Your task to perform on an android device: add a contact in the contacts app Image 0: 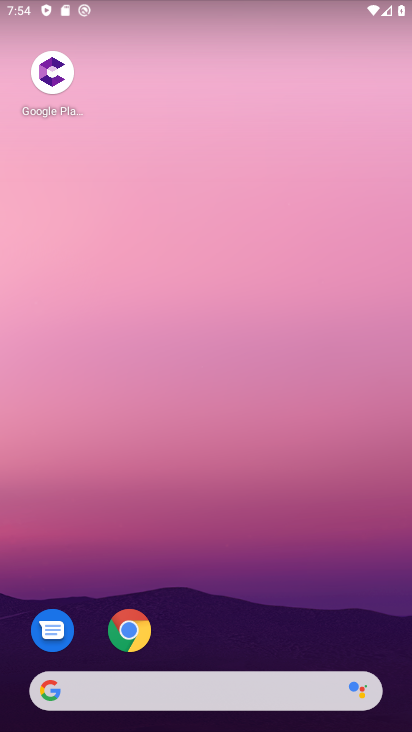
Step 0: drag from (254, 621) to (326, 184)
Your task to perform on an android device: add a contact in the contacts app Image 1: 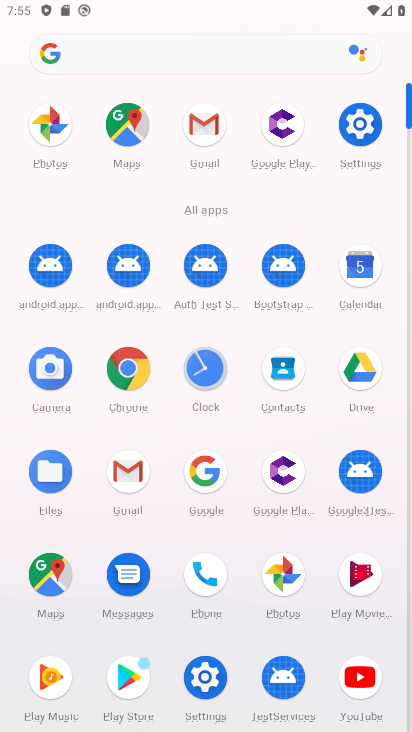
Step 1: click (277, 372)
Your task to perform on an android device: add a contact in the contacts app Image 2: 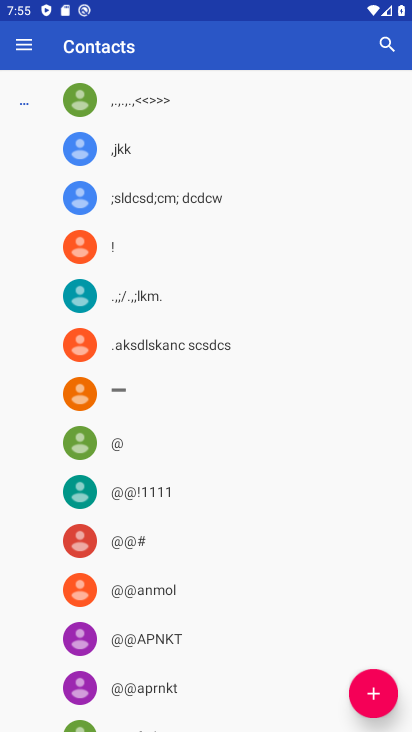
Step 2: click (374, 698)
Your task to perform on an android device: add a contact in the contacts app Image 3: 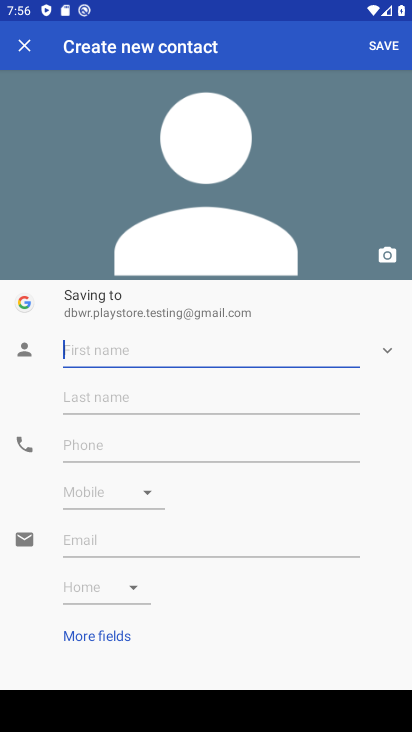
Step 3: click (111, 392)
Your task to perform on an android device: add a contact in the contacts app Image 4: 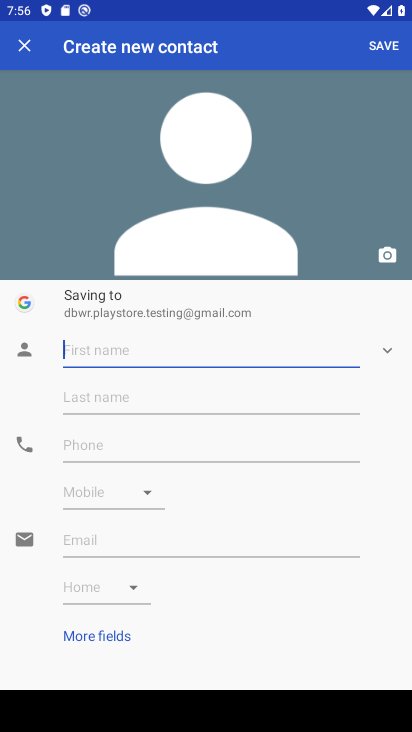
Step 4: type "jj"
Your task to perform on an android device: add a contact in the contacts app Image 5: 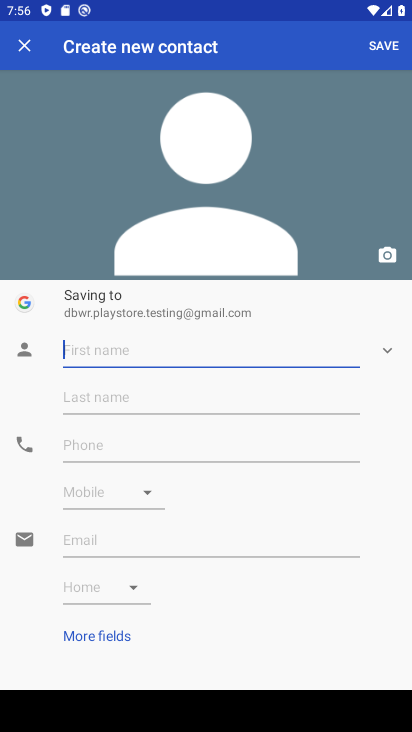
Step 5: click (111, 392)
Your task to perform on an android device: add a contact in the contacts app Image 6: 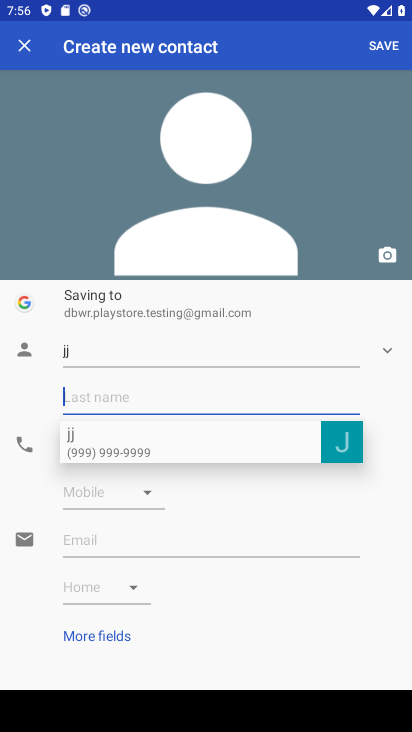
Step 6: type "hh"
Your task to perform on an android device: add a contact in the contacts app Image 7: 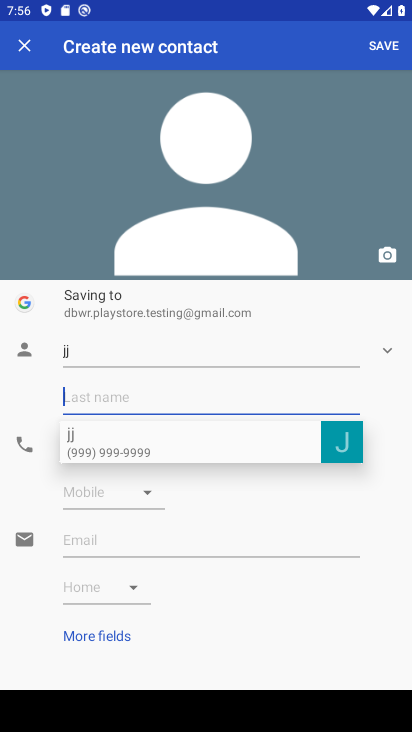
Step 7: click (122, 447)
Your task to perform on an android device: add a contact in the contacts app Image 8: 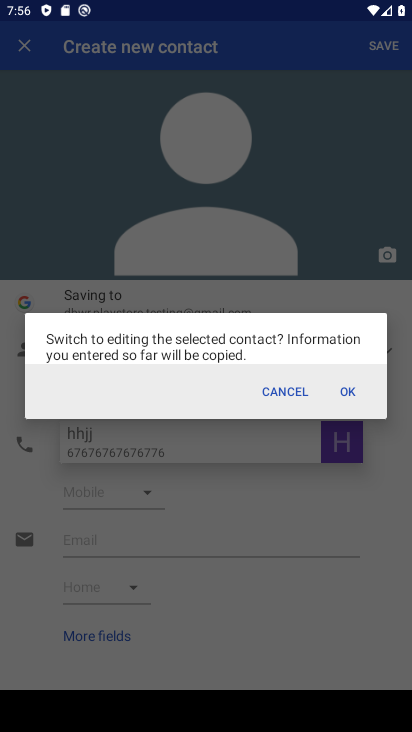
Step 8: click (340, 389)
Your task to perform on an android device: add a contact in the contacts app Image 9: 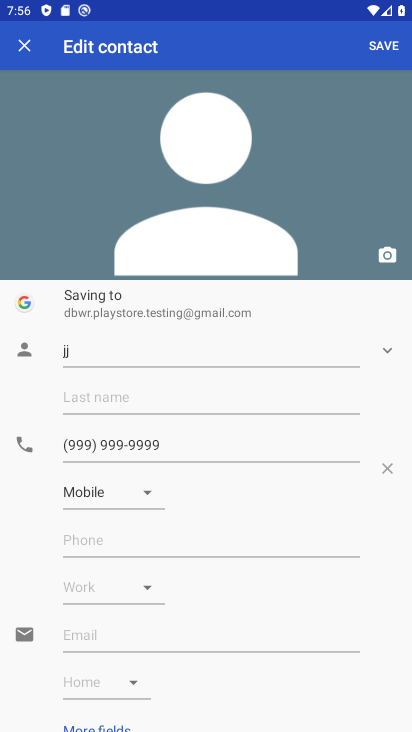
Step 9: click (79, 389)
Your task to perform on an android device: add a contact in the contacts app Image 10: 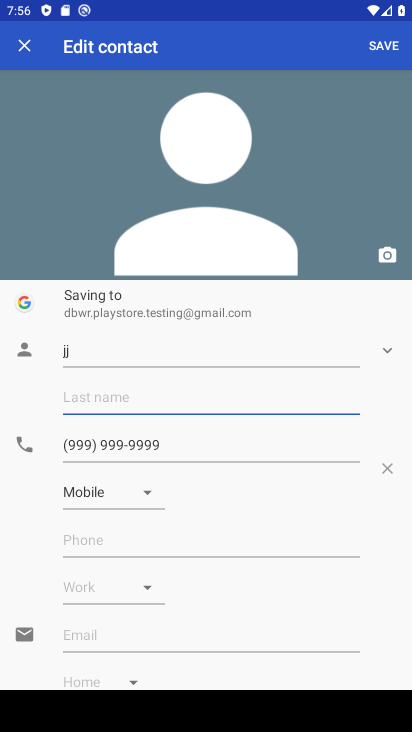
Step 10: type "9ghbnvg"
Your task to perform on an android device: add a contact in the contacts app Image 11: 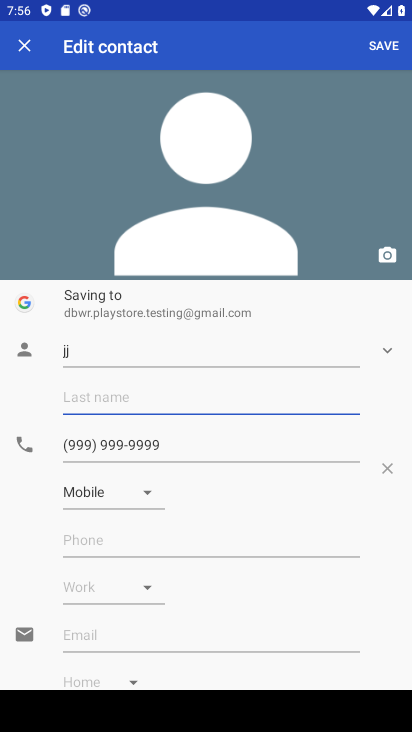
Step 11: click (145, 535)
Your task to perform on an android device: add a contact in the contacts app Image 12: 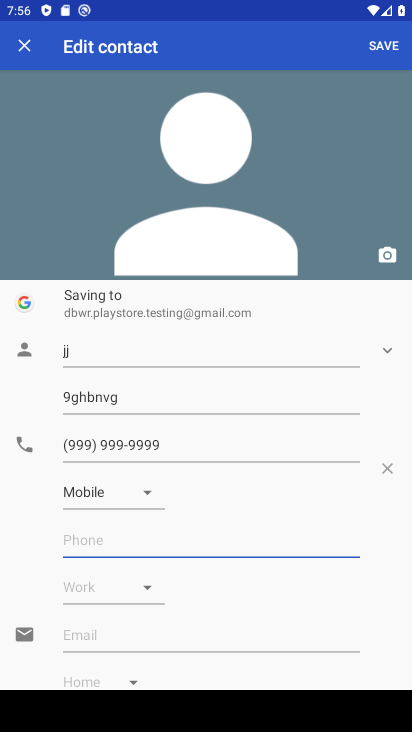
Step 12: click (393, 43)
Your task to perform on an android device: add a contact in the contacts app Image 13: 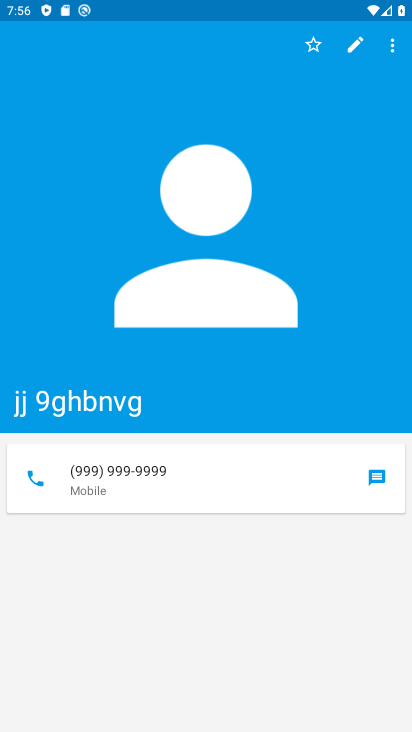
Step 13: task complete